Your task to perform on an android device: Go to network settings Image 0: 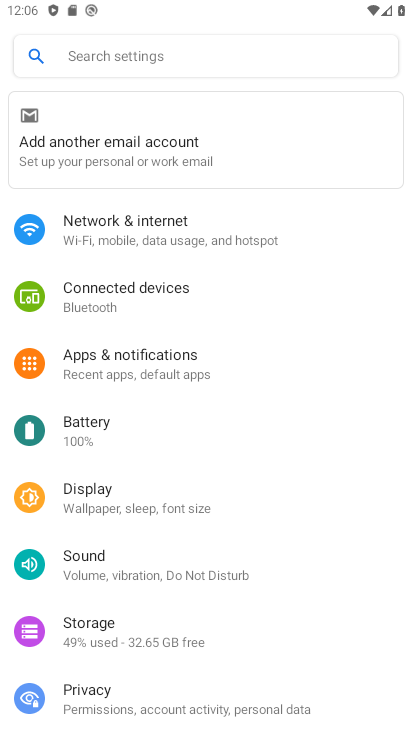
Step 0: click (138, 233)
Your task to perform on an android device: Go to network settings Image 1: 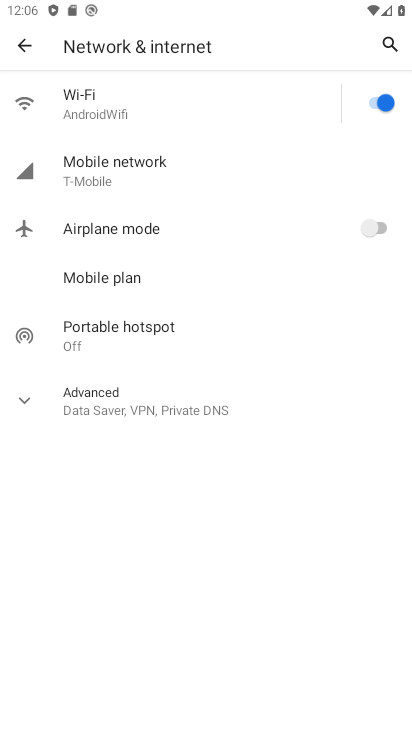
Step 1: click (108, 170)
Your task to perform on an android device: Go to network settings Image 2: 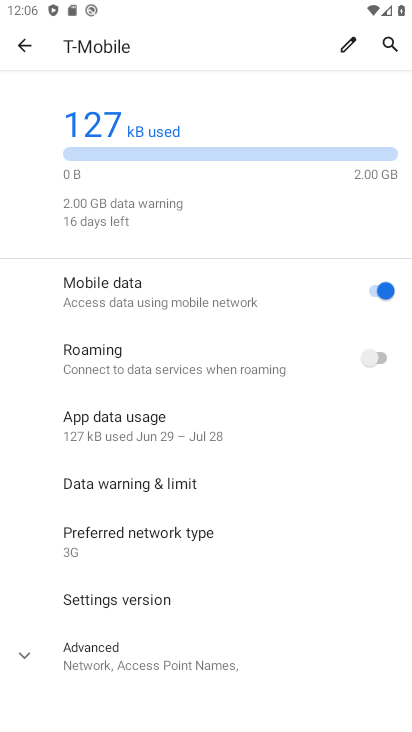
Step 2: task complete